Your task to perform on an android device: open app "Walmart Shopping & Grocery" Image 0: 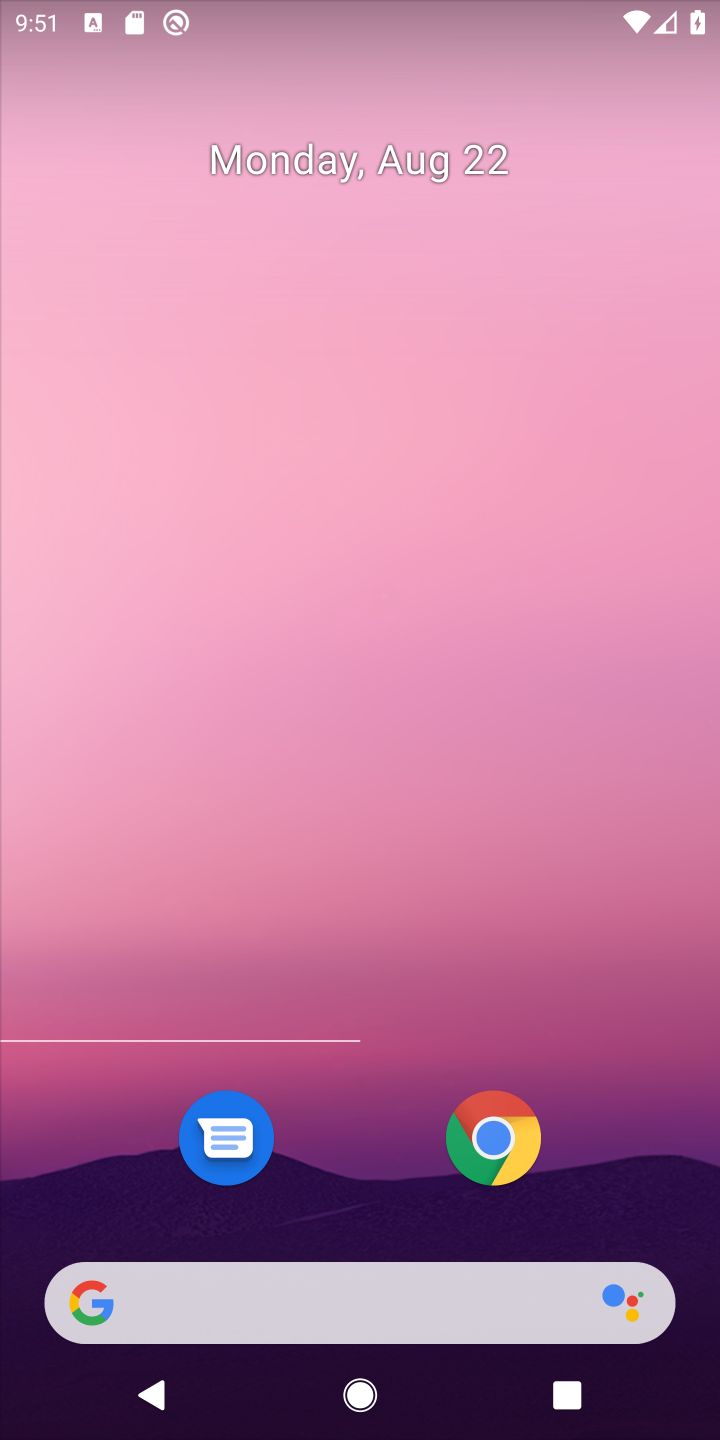
Step 0: press home button
Your task to perform on an android device: open app "Walmart Shopping & Grocery" Image 1: 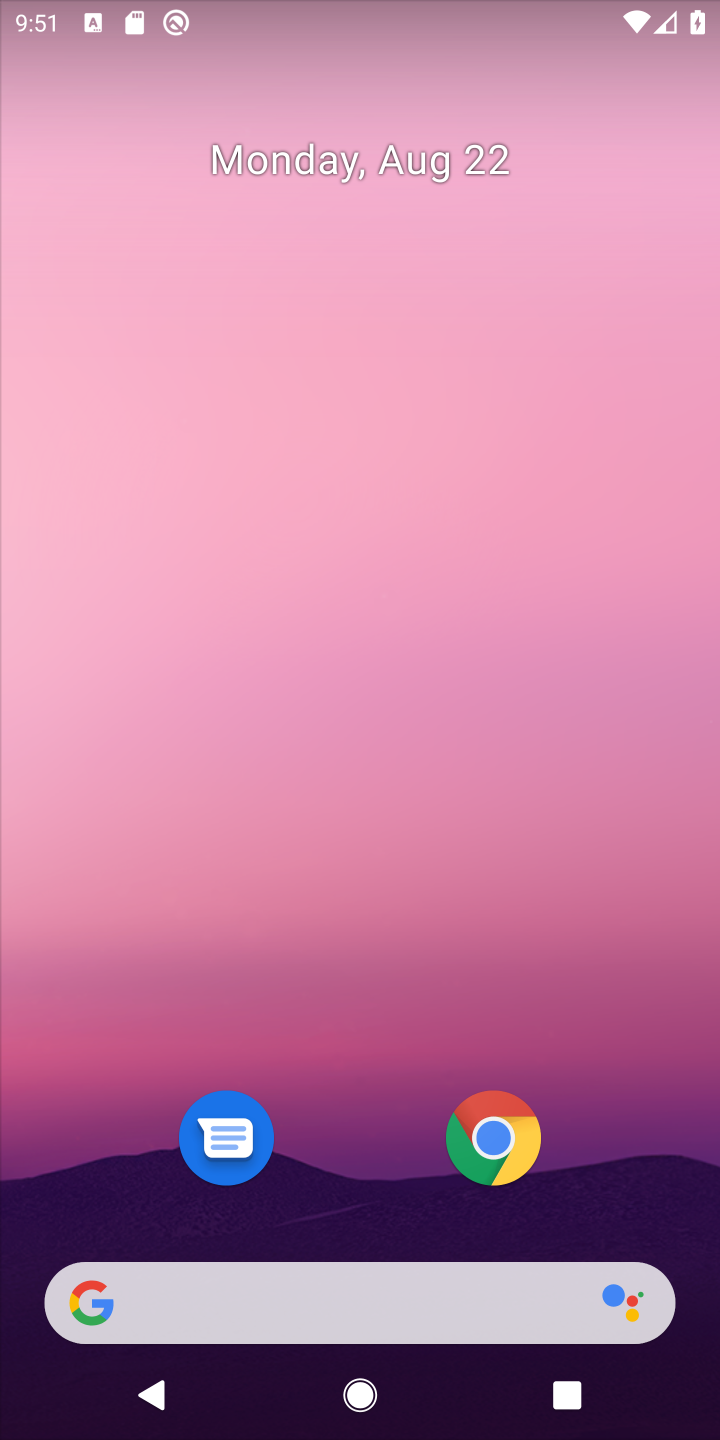
Step 1: drag from (359, 1208) to (412, 131)
Your task to perform on an android device: open app "Walmart Shopping & Grocery" Image 2: 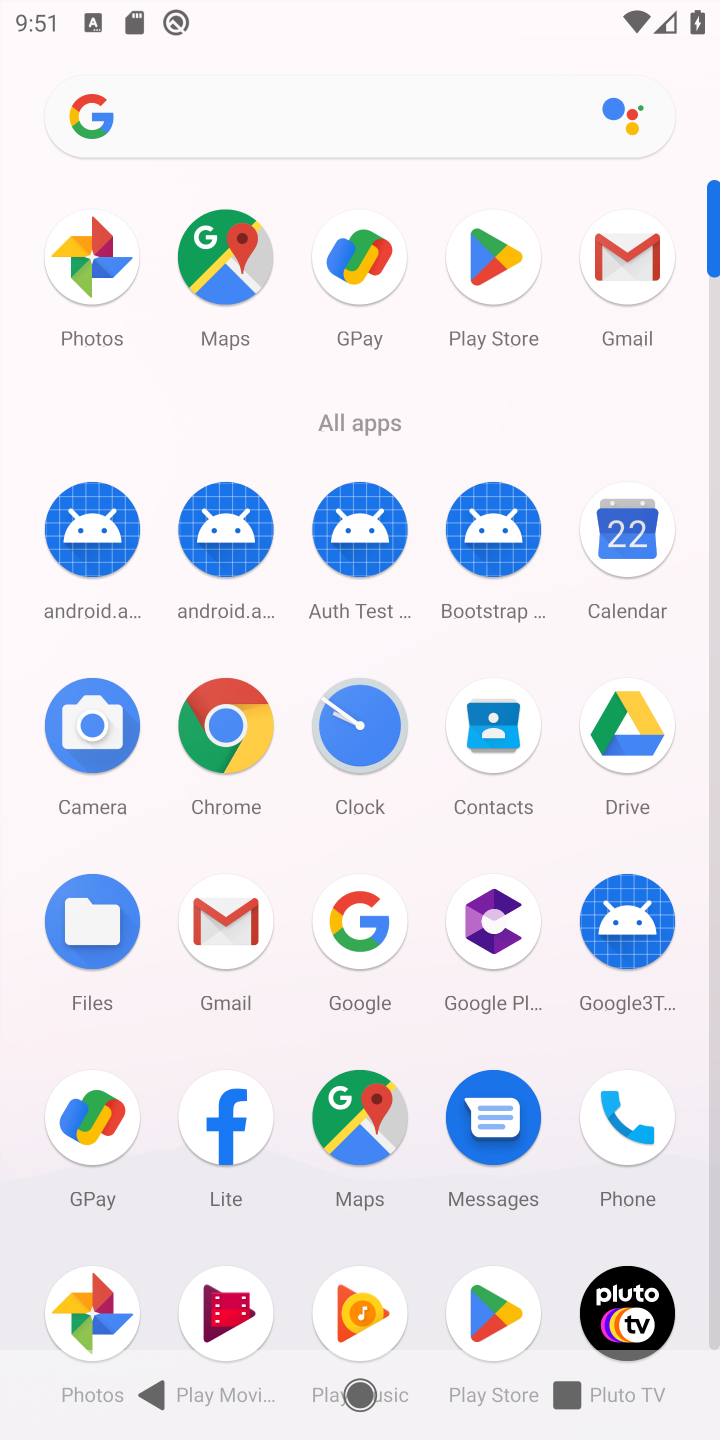
Step 2: click (489, 250)
Your task to perform on an android device: open app "Walmart Shopping & Grocery" Image 3: 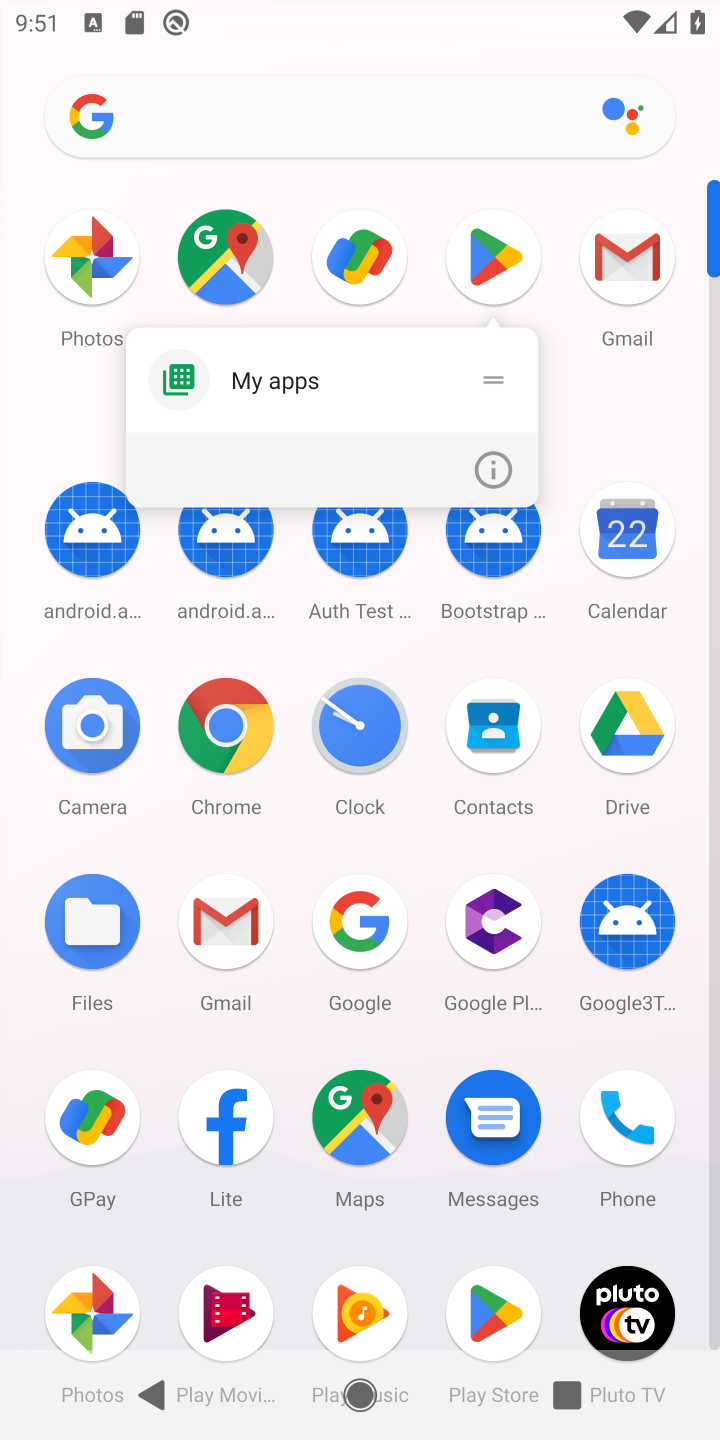
Step 3: click (485, 245)
Your task to perform on an android device: open app "Walmart Shopping & Grocery" Image 4: 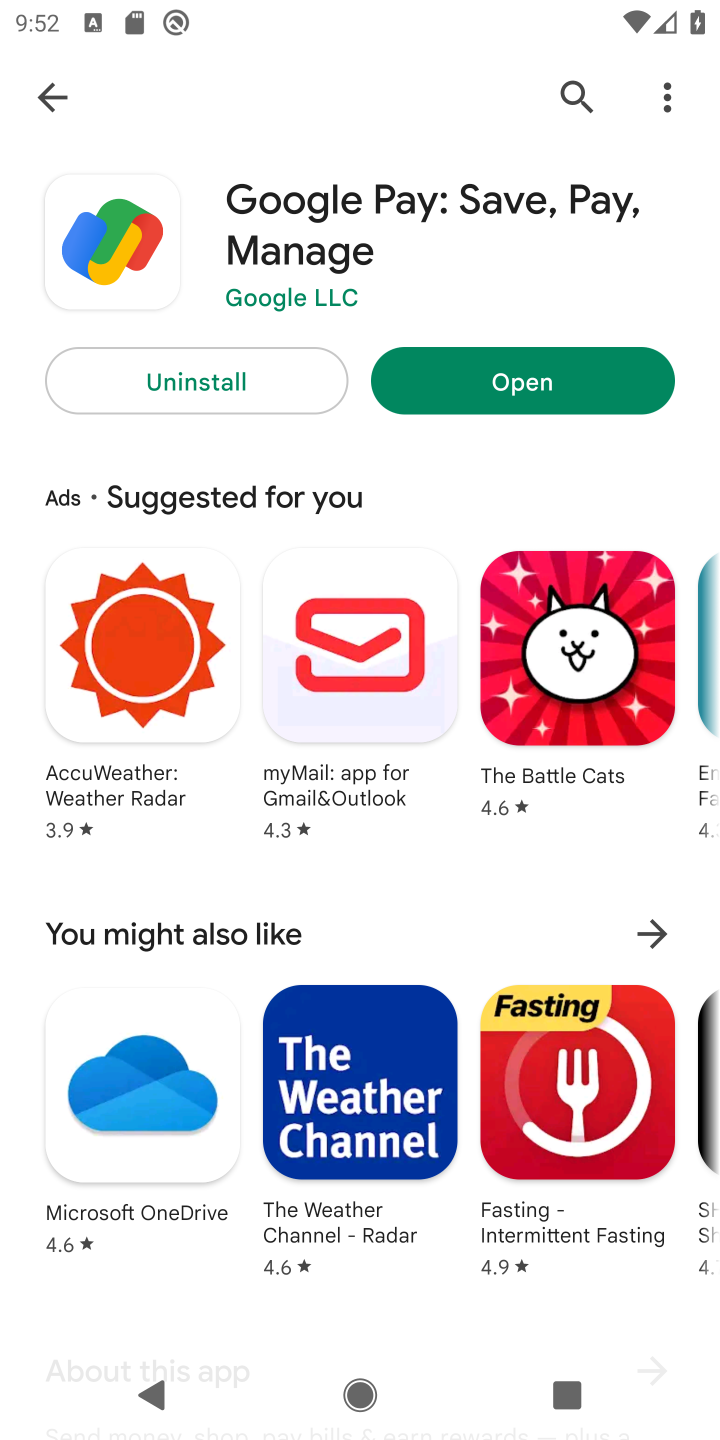
Step 4: click (568, 110)
Your task to perform on an android device: open app "Walmart Shopping & Grocery" Image 5: 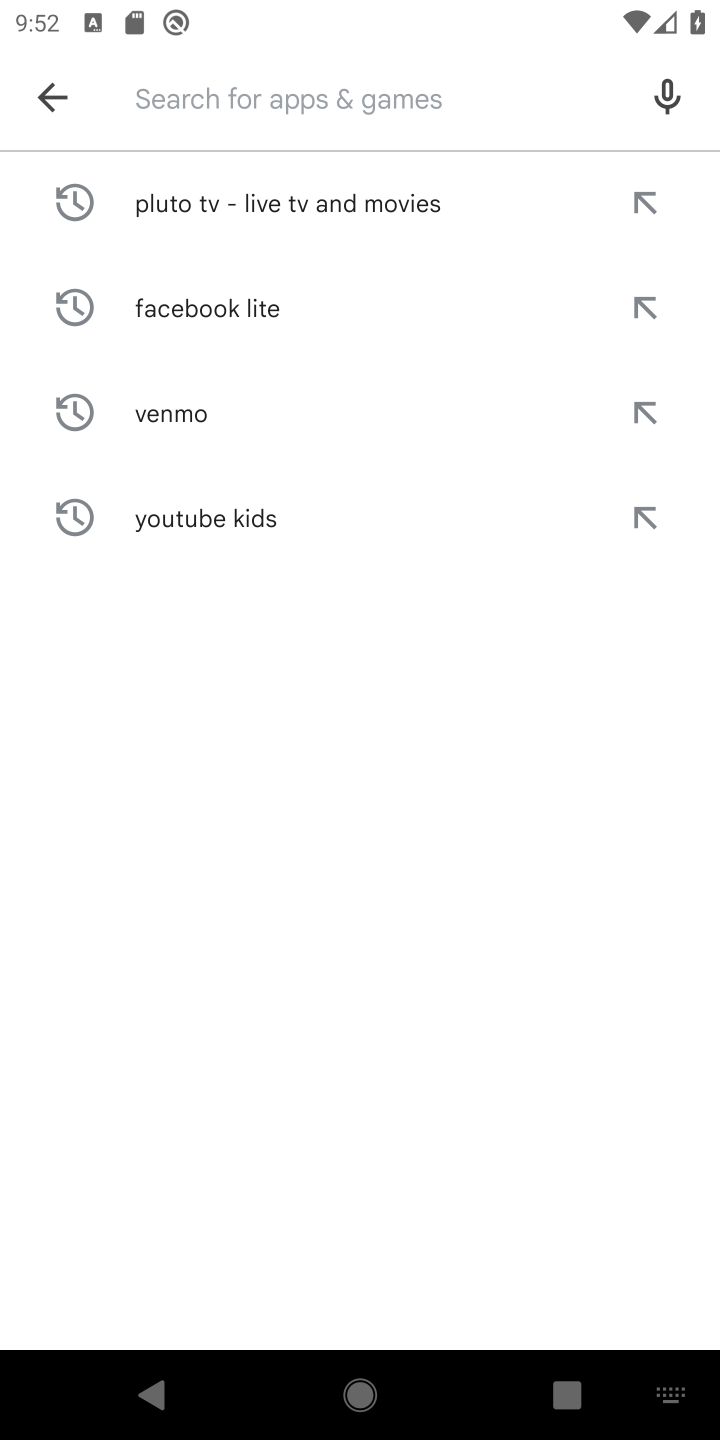
Step 5: type "Walmart Shopping & Grocery"
Your task to perform on an android device: open app "Walmart Shopping & Grocery" Image 6: 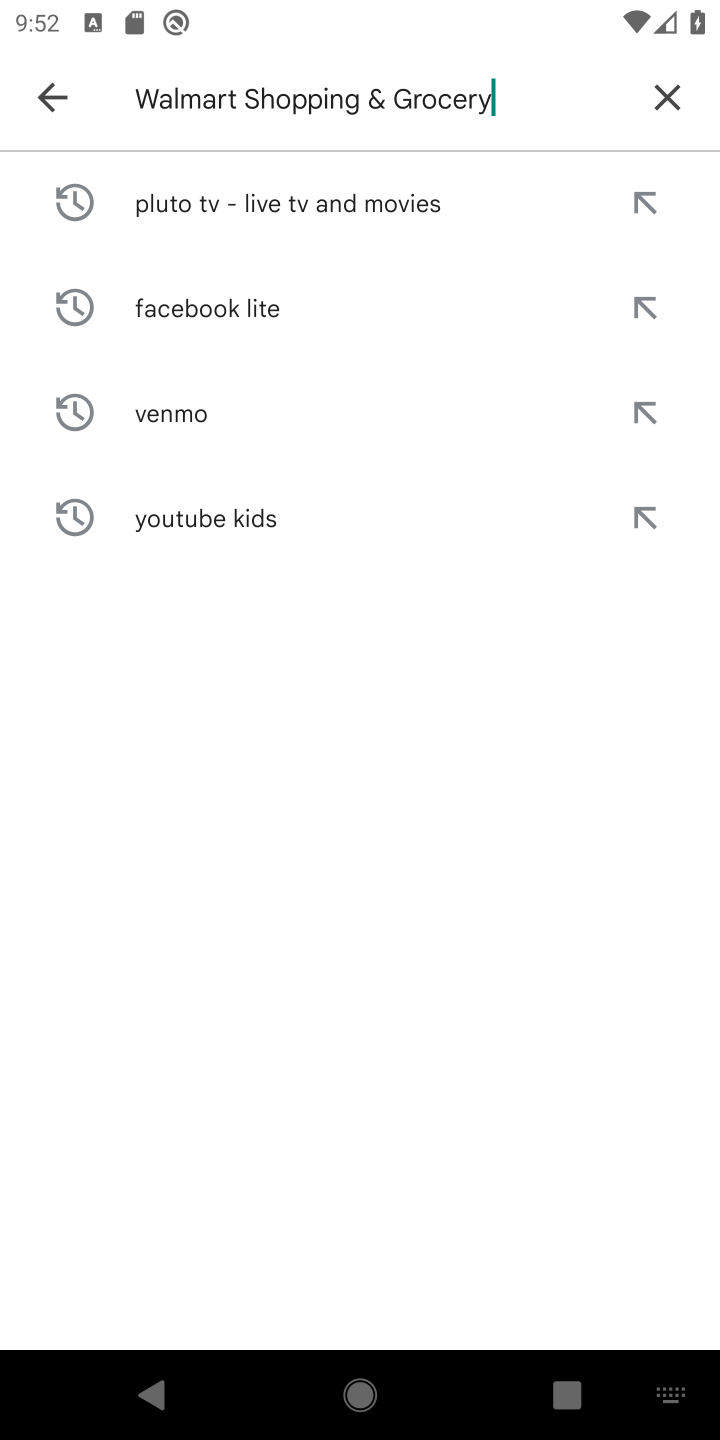
Step 6: type ""
Your task to perform on an android device: open app "Walmart Shopping & Grocery" Image 7: 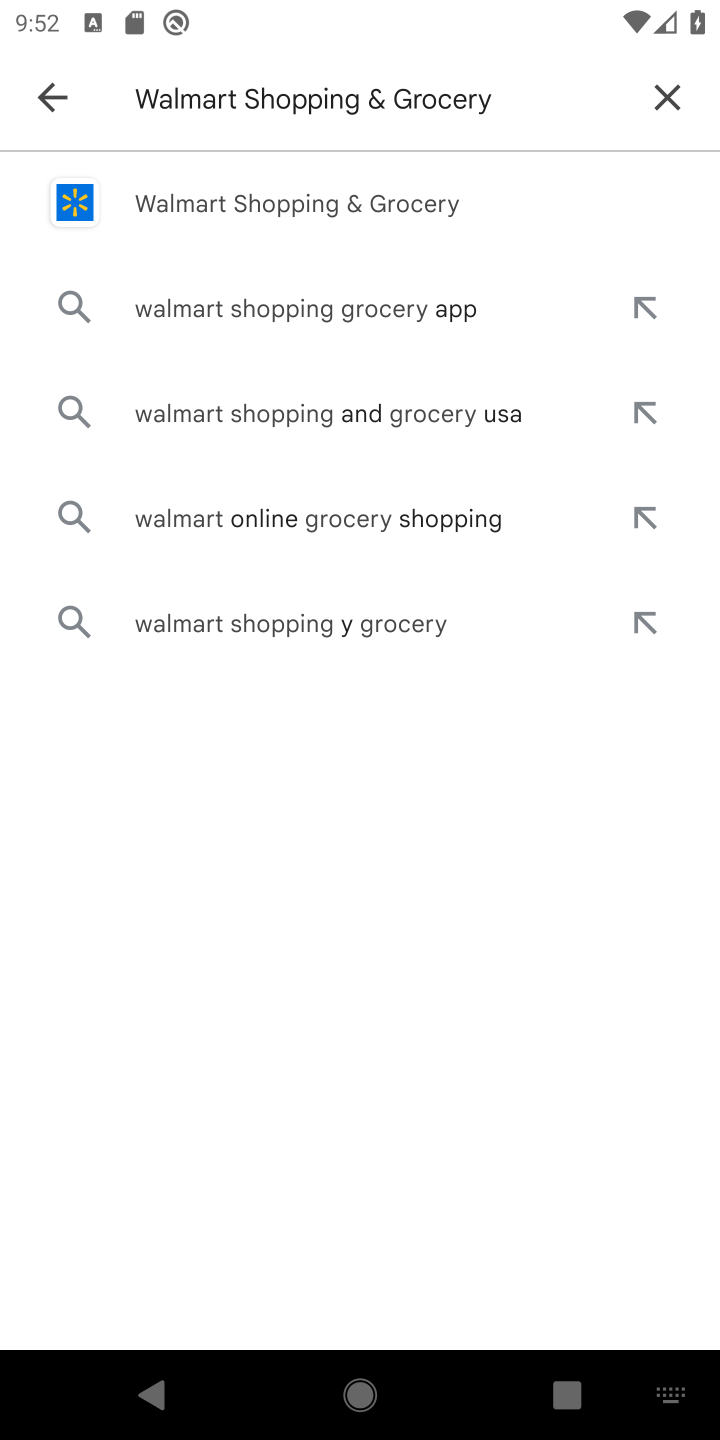
Step 7: click (471, 210)
Your task to perform on an android device: open app "Walmart Shopping & Grocery" Image 8: 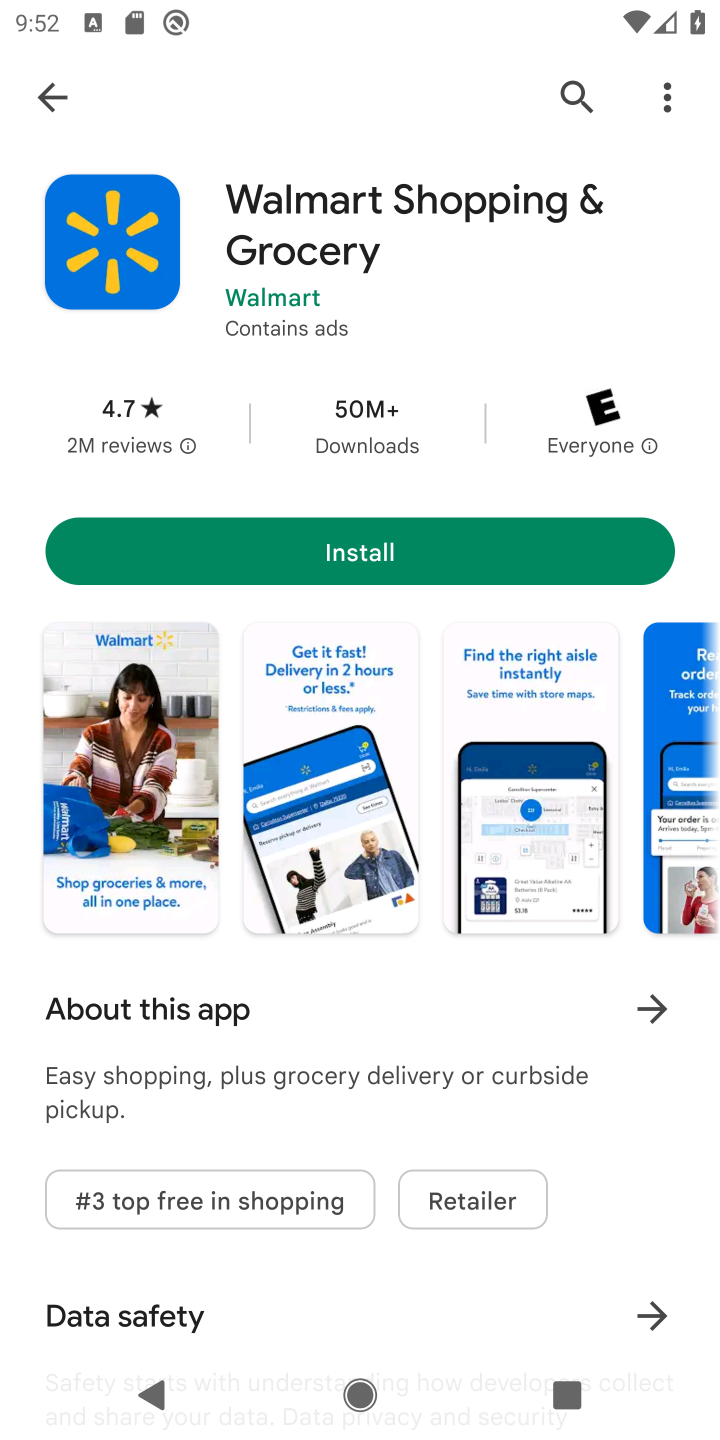
Step 8: task complete